Your task to perform on an android device: remove spam from my inbox in the gmail app Image 0: 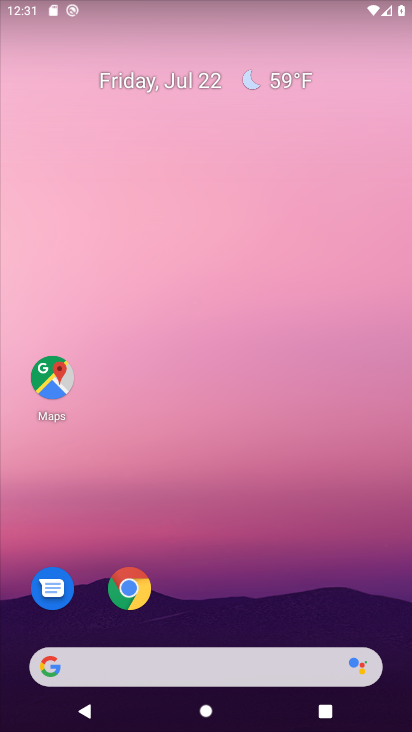
Step 0: drag from (204, 600) to (376, 94)
Your task to perform on an android device: remove spam from my inbox in the gmail app Image 1: 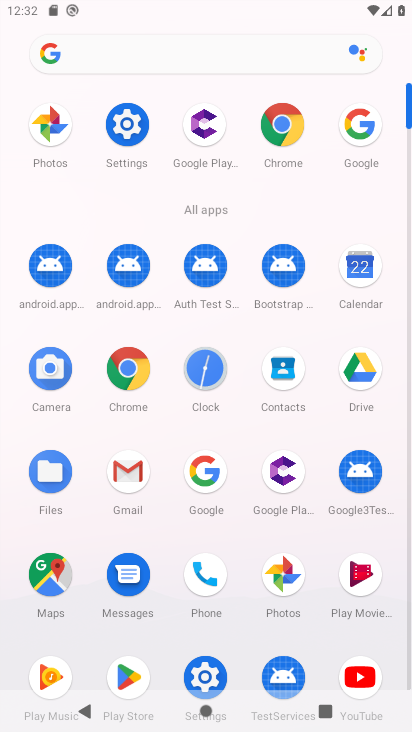
Step 1: click (125, 470)
Your task to perform on an android device: remove spam from my inbox in the gmail app Image 2: 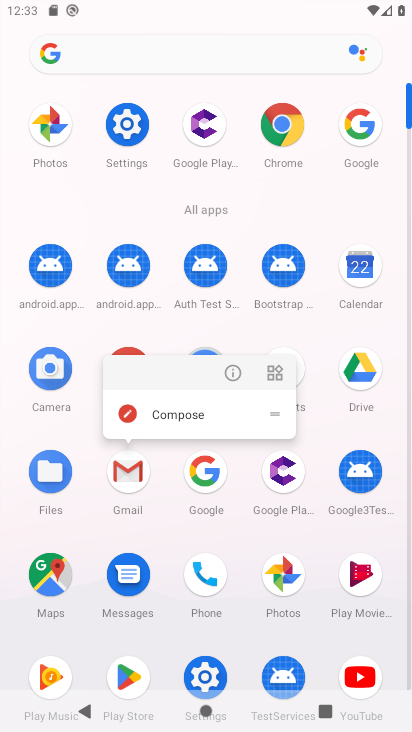
Step 2: click (125, 470)
Your task to perform on an android device: remove spam from my inbox in the gmail app Image 3: 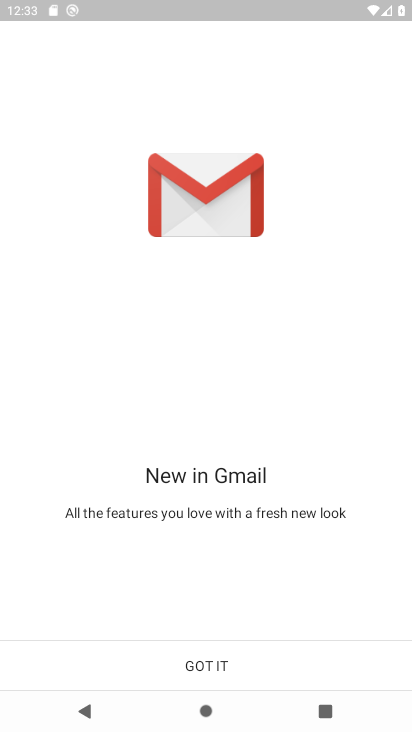
Step 3: click (206, 663)
Your task to perform on an android device: remove spam from my inbox in the gmail app Image 4: 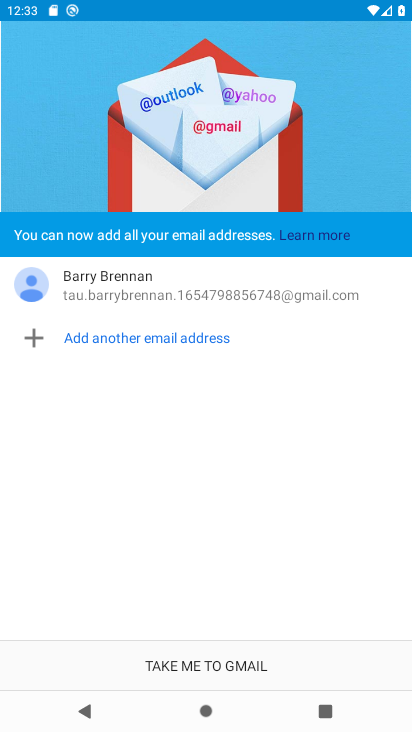
Step 4: click (206, 663)
Your task to perform on an android device: remove spam from my inbox in the gmail app Image 5: 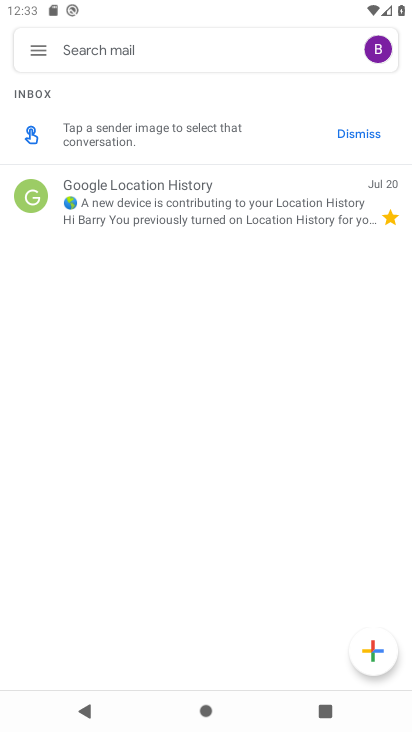
Step 5: click (46, 52)
Your task to perform on an android device: remove spam from my inbox in the gmail app Image 6: 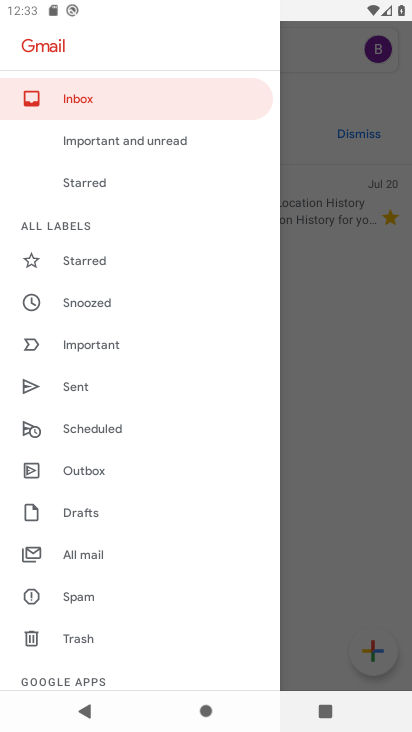
Step 6: click (85, 596)
Your task to perform on an android device: remove spam from my inbox in the gmail app Image 7: 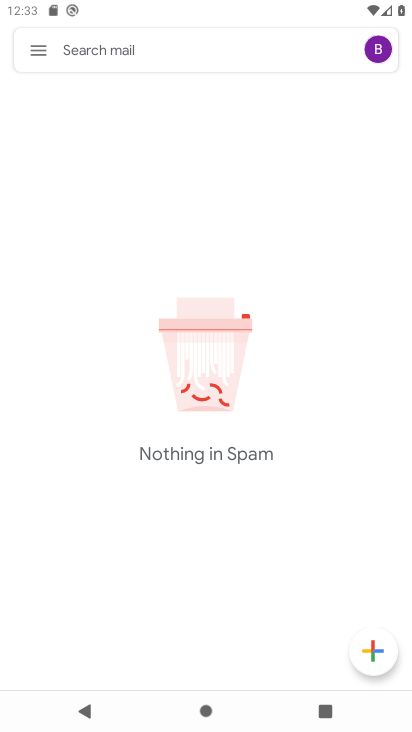
Step 7: task complete